Your task to perform on an android device: turn pop-ups off in chrome Image 0: 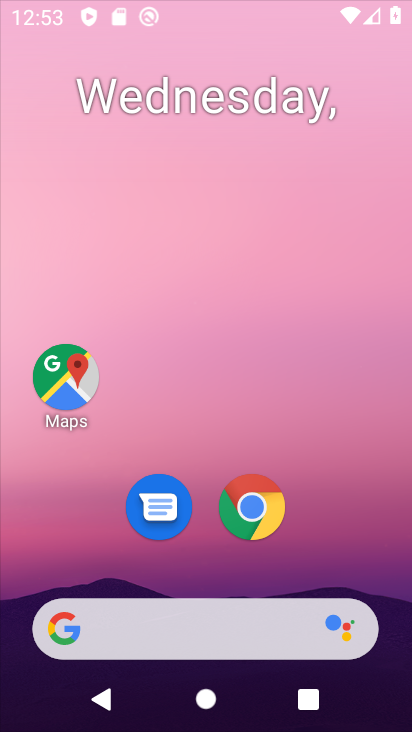
Step 0: press home button
Your task to perform on an android device: turn pop-ups off in chrome Image 1: 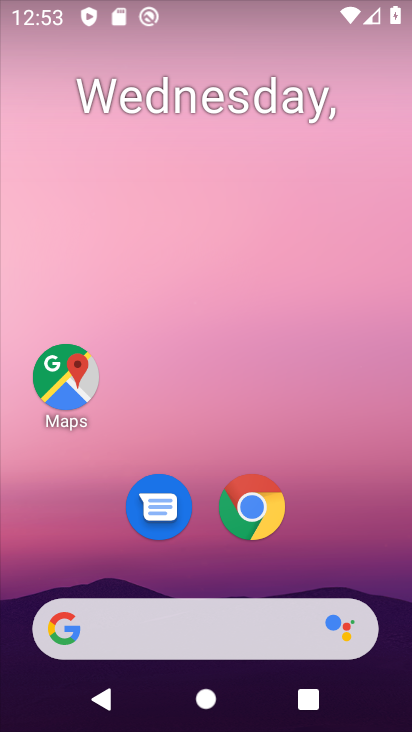
Step 1: click (254, 505)
Your task to perform on an android device: turn pop-ups off in chrome Image 2: 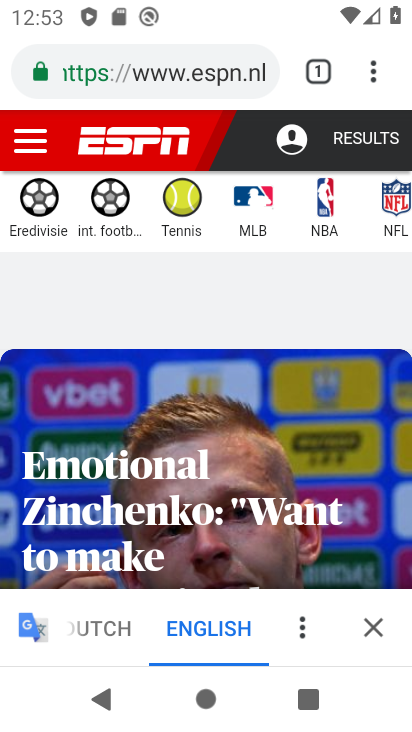
Step 2: drag from (371, 72) to (162, 512)
Your task to perform on an android device: turn pop-ups off in chrome Image 3: 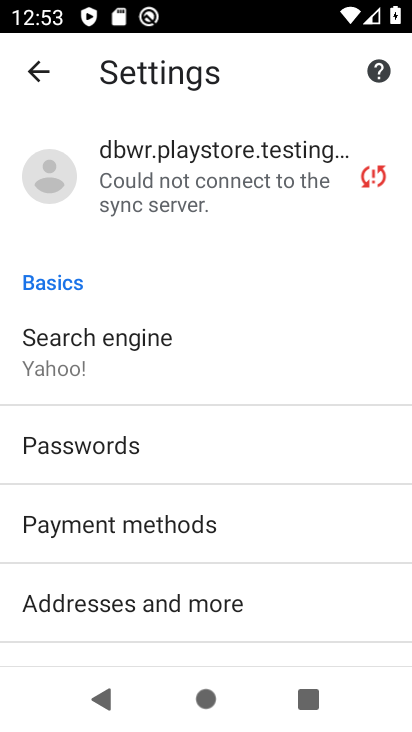
Step 3: drag from (151, 571) to (254, 146)
Your task to perform on an android device: turn pop-ups off in chrome Image 4: 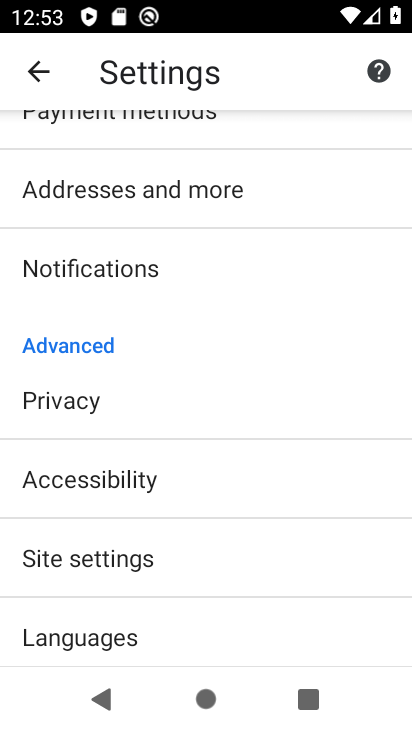
Step 4: click (126, 558)
Your task to perform on an android device: turn pop-ups off in chrome Image 5: 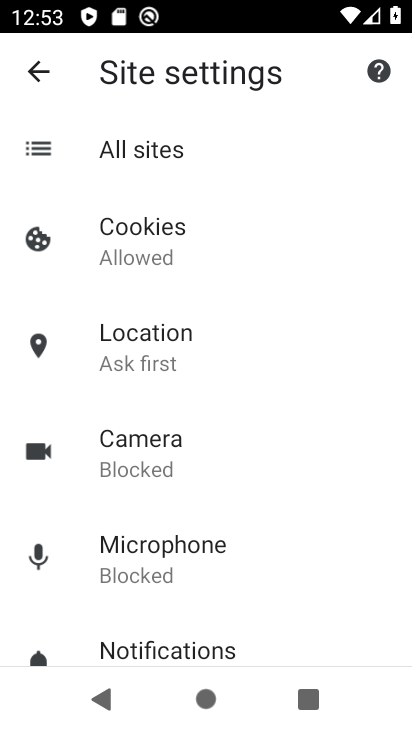
Step 5: drag from (212, 584) to (275, 249)
Your task to perform on an android device: turn pop-ups off in chrome Image 6: 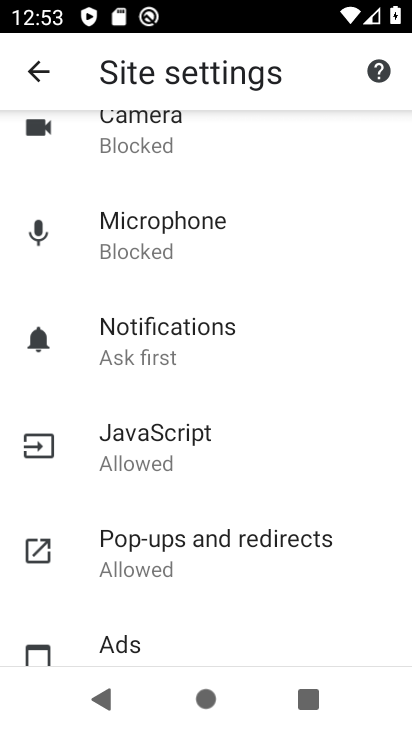
Step 6: click (174, 559)
Your task to perform on an android device: turn pop-ups off in chrome Image 7: 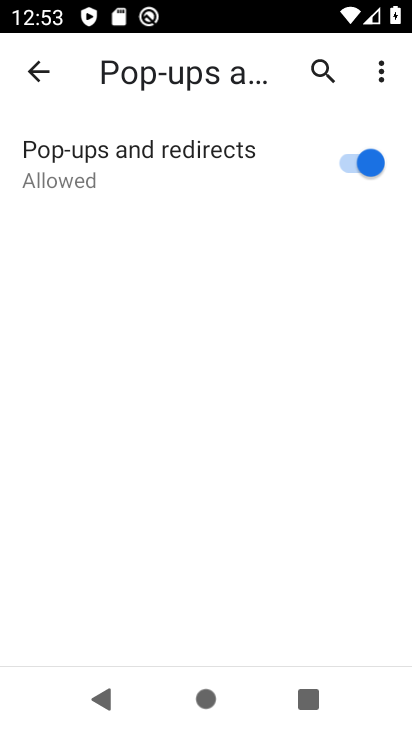
Step 7: click (353, 161)
Your task to perform on an android device: turn pop-ups off in chrome Image 8: 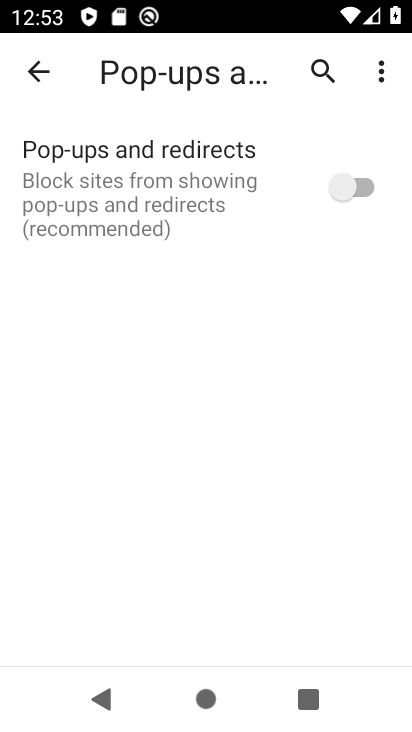
Step 8: task complete